Your task to perform on an android device: Set the phone to "Do not disturb". Image 0: 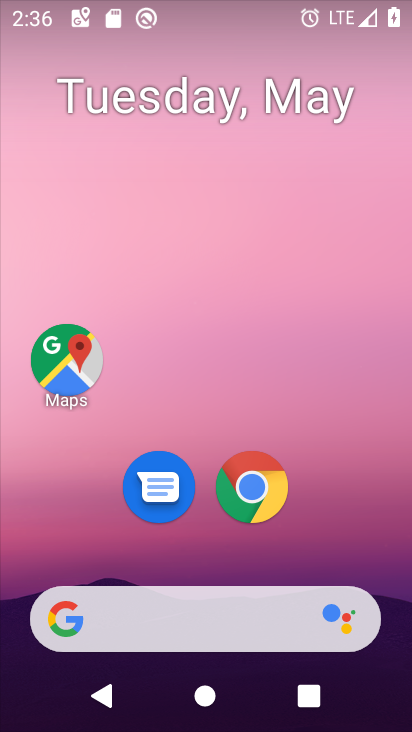
Step 0: press home button
Your task to perform on an android device: Set the phone to "Do not disturb". Image 1: 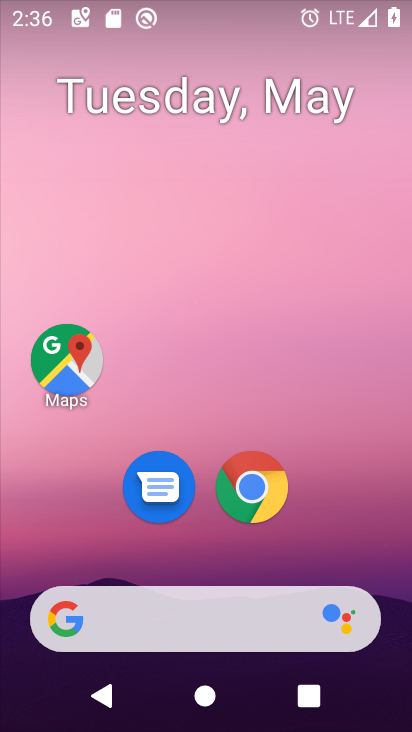
Step 1: drag from (310, 47) to (289, 302)
Your task to perform on an android device: Set the phone to "Do not disturb". Image 2: 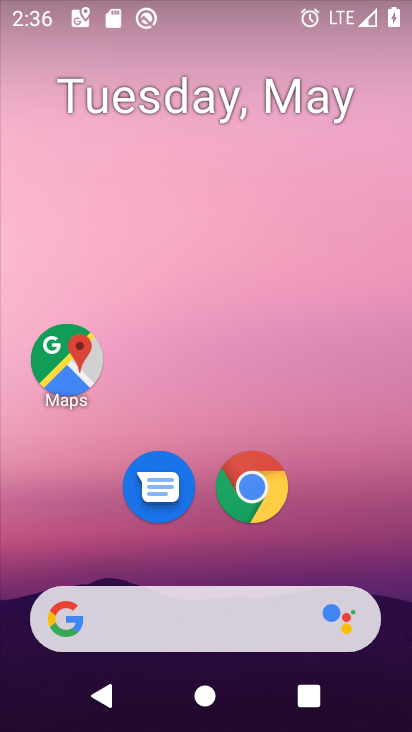
Step 2: drag from (260, 8) to (140, 407)
Your task to perform on an android device: Set the phone to "Do not disturb". Image 3: 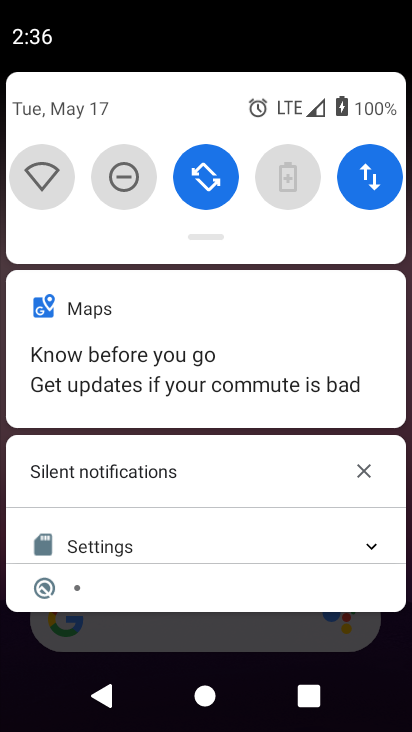
Step 3: click (138, 188)
Your task to perform on an android device: Set the phone to "Do not disturb". Image 4: 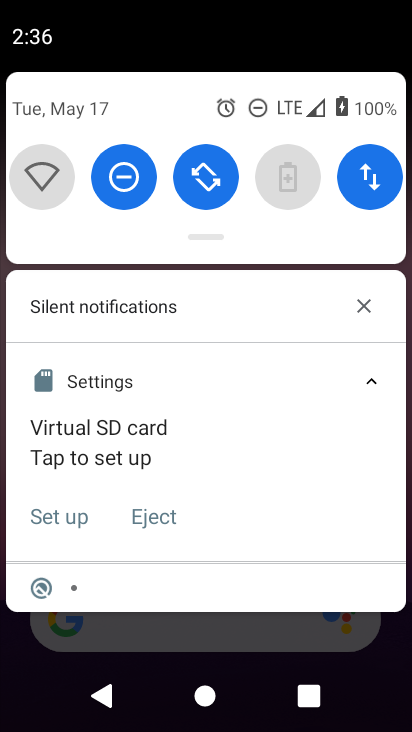
Step 4: task complete